Your task to perform on an android device: turn off sleep mode Image 0: 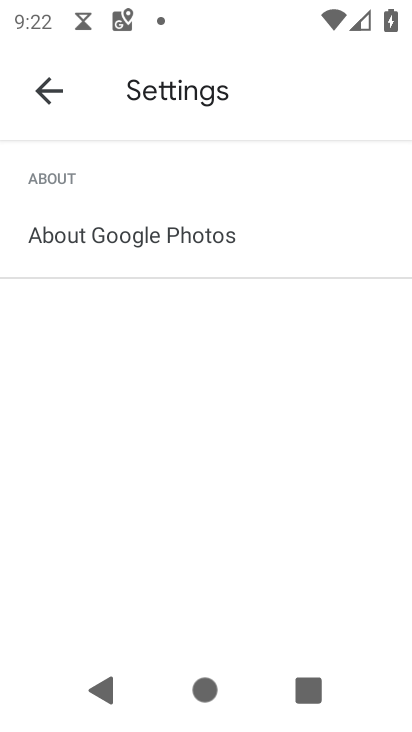
Step 0: press home button
Your task to perform on an android device: turn off sleep mode Image 1: 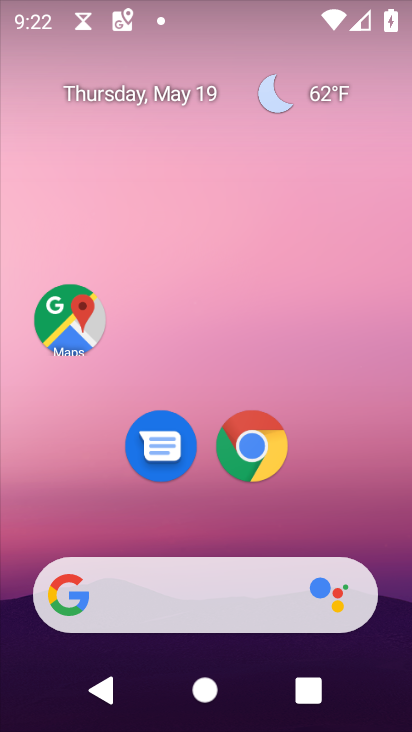
Step 1: drag from (281, 515) to (267, 28)
Your task to perform on an android device: turn off sleep mode Image 2: 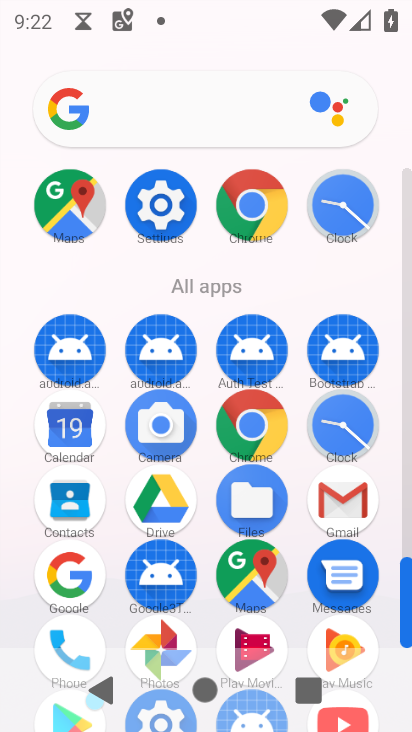
Step 2: click (158, 201)
Your task to perform on an android device: turn off sleep mode Image 3: 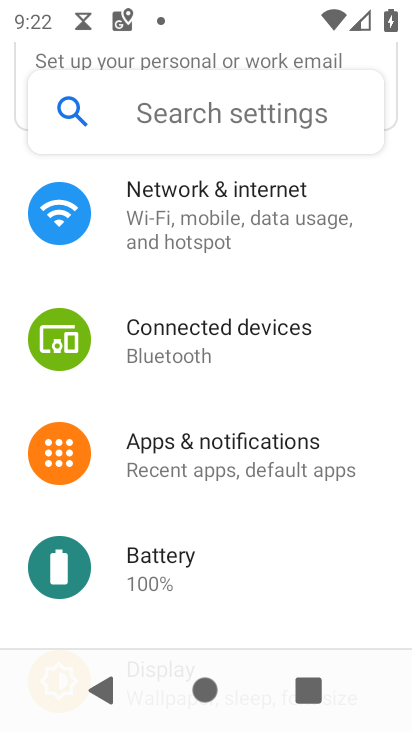
Step 3: drag from (193, 526) to (198, 305)
Your task to perform on an android device: turn off sleep mode Image 4: 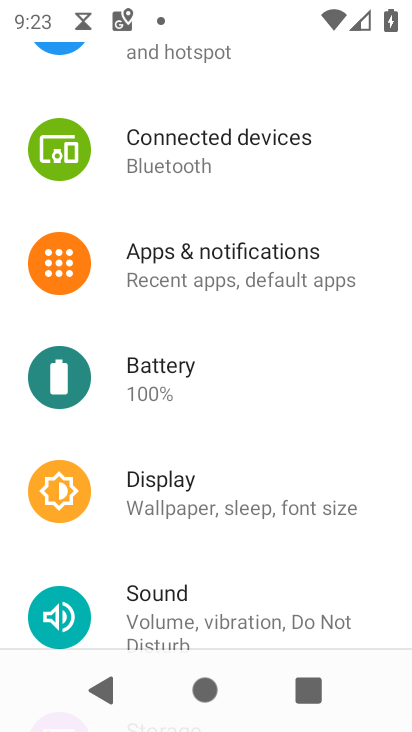
Step 4: drag from (231, 507) to (221, 376)
Your task to perform on an android device: turn off sleep mode Image 5: 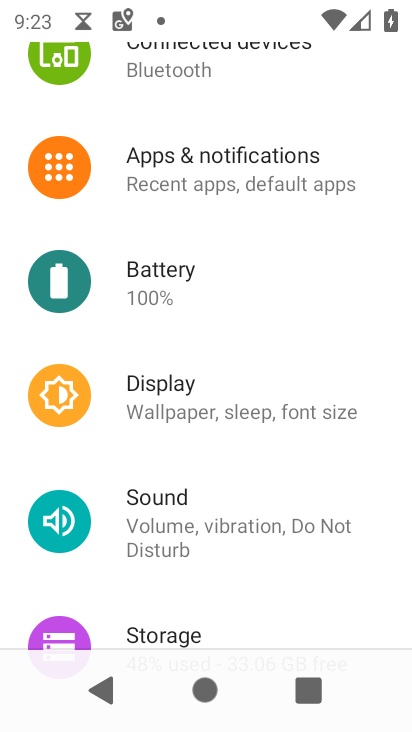
Step 5: drag from (252, 533) to (226, 359)
Your task to perform on an android device: turn off sleep mode Image 6: 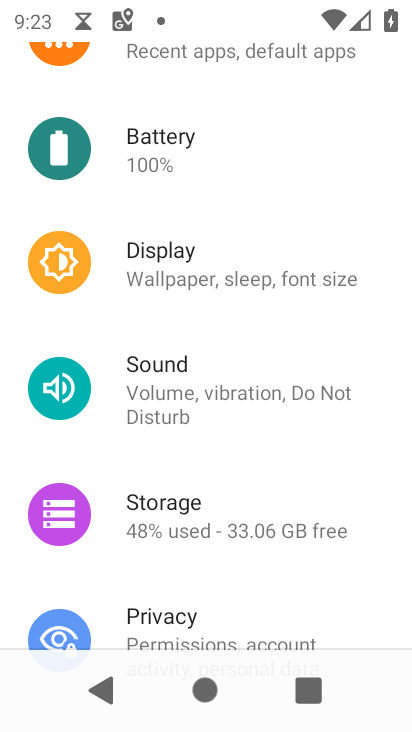
Step 6: drag from (261, 546) to (241, 395)
Your task to perform on an android device: turn off sleep mode Image 7: 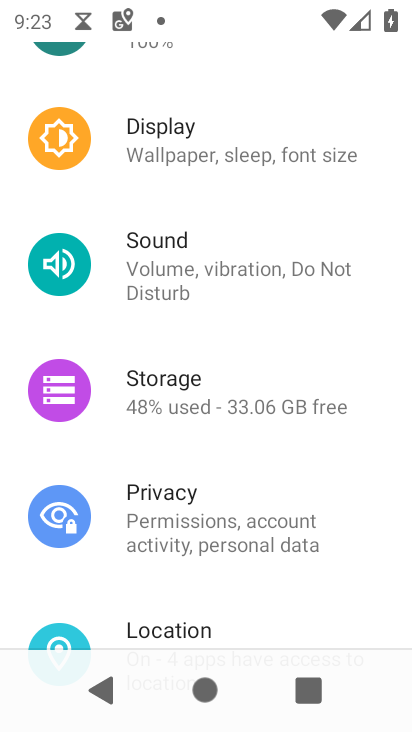
Step 7: drag from (243, 547) to (223, 426)
Your task to perform on an android device: turn off sleep mode Image 8: 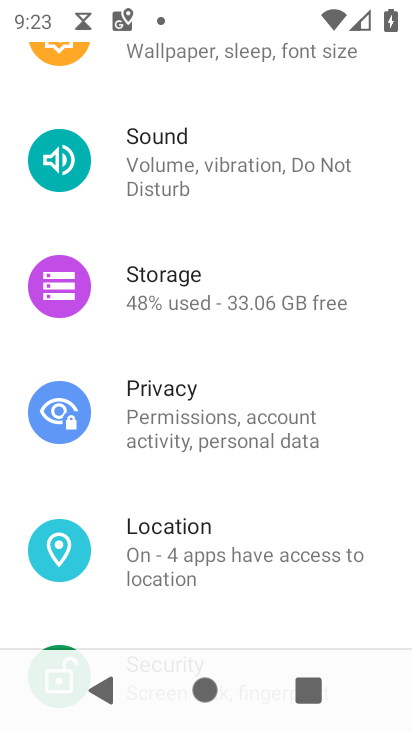
Step 8: drag from (222, 552) to (210, 416)
Your task to perform on an android device: turn off sleep mode Image 9: 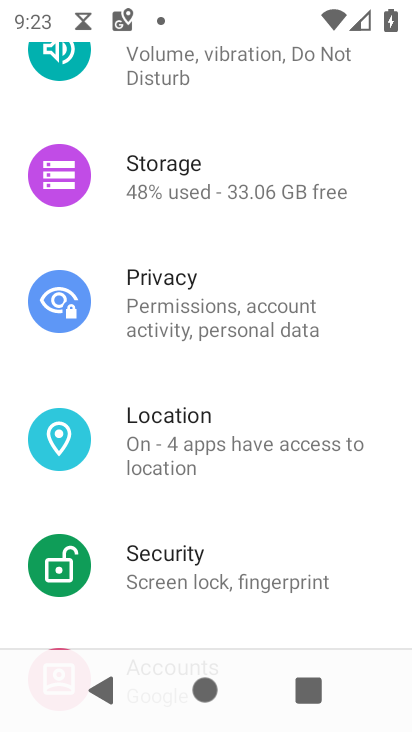
Step 9: drag from (231, 547) to (225, 419)
Your task to perform on an android device: turn off sleep mode Image 10: 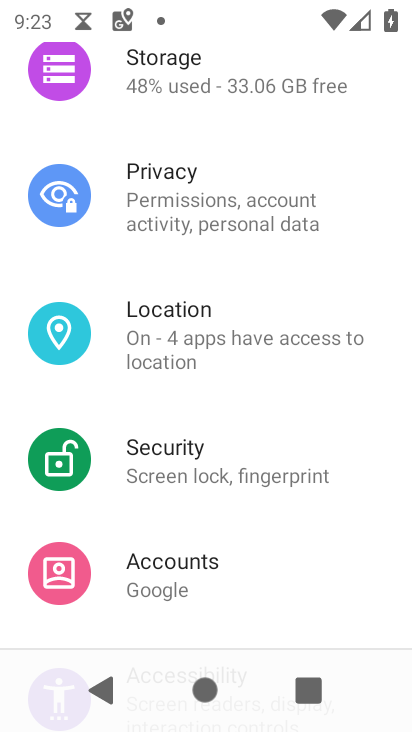
Step 10: drag from (241, 567) to (242, 332)
Your task to perform on an android device: turn off sleep mode Image 11: 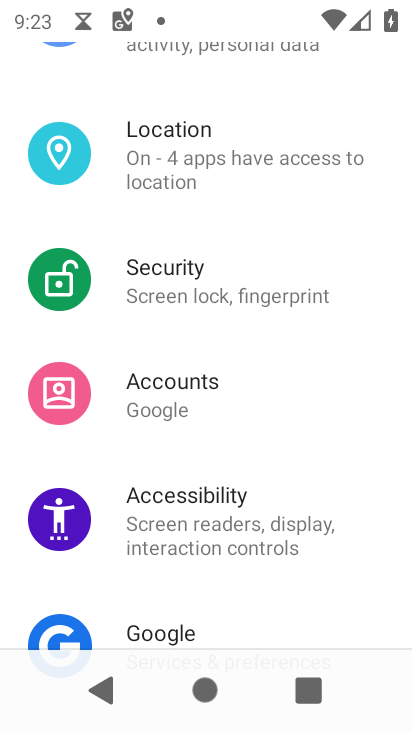
Step 11: drag from (271, 582) to (251, 311)
Your task to perform on an android device: turn off sleep mode Image 12: 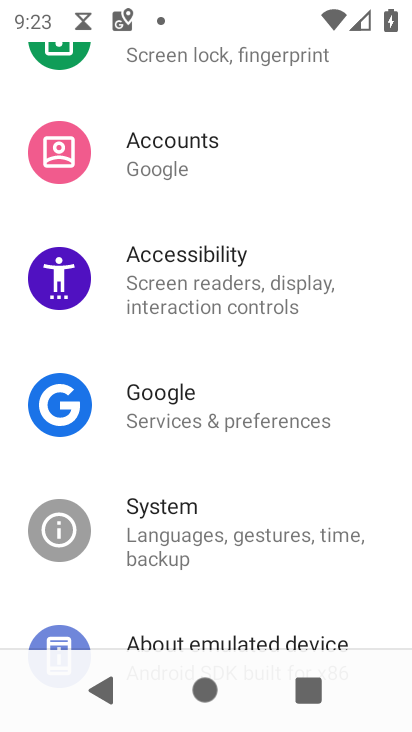
Step 12: drag from (212, 571) to (178, 550)
Your task to perform on an android device: turn off sleep mode Image 13: 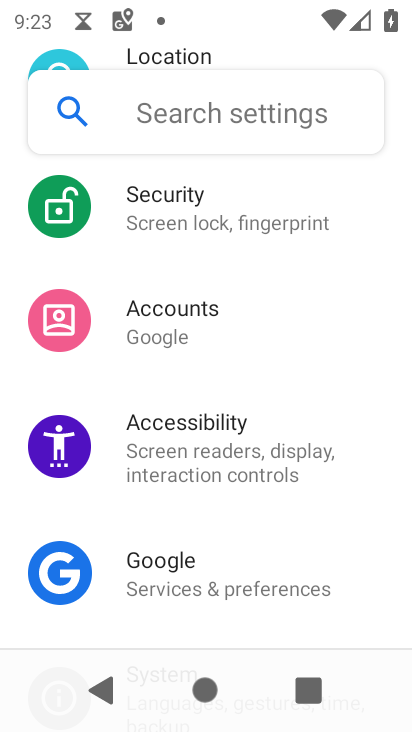
Step 13: drag from (167, 299) to (201, 583)
Your task to perform on an android device: turn off sleep mode Image 14: 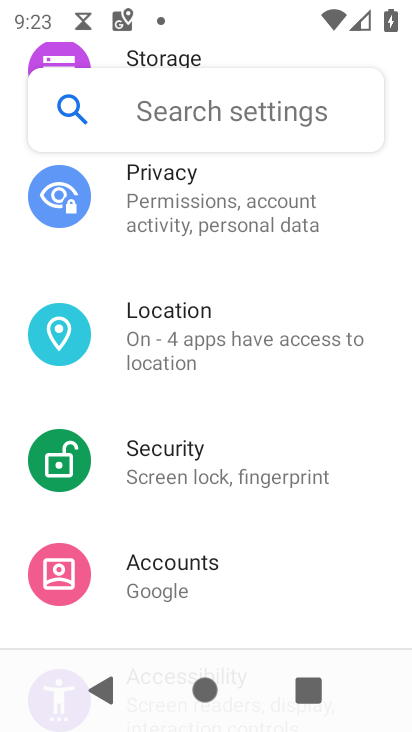
Step 14: drag from (152, 359) to (166, 524)
Your task to perform on an android device: turn off sleep mode Image 15: 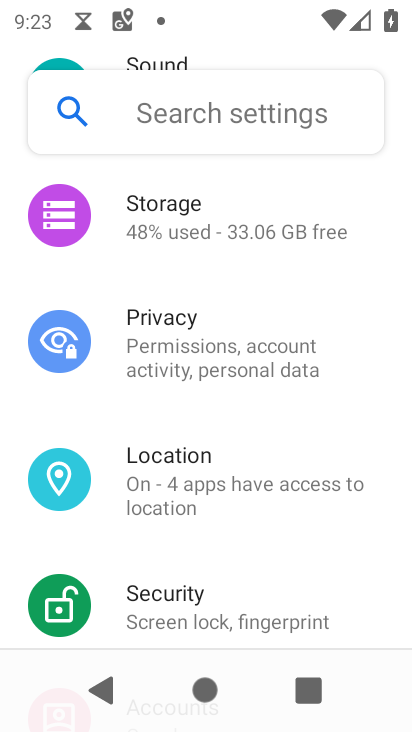
Step 15: drag from (141, 372) to (152, 497)
Your task to perform on an android device: turn off sleep mode Image 16: 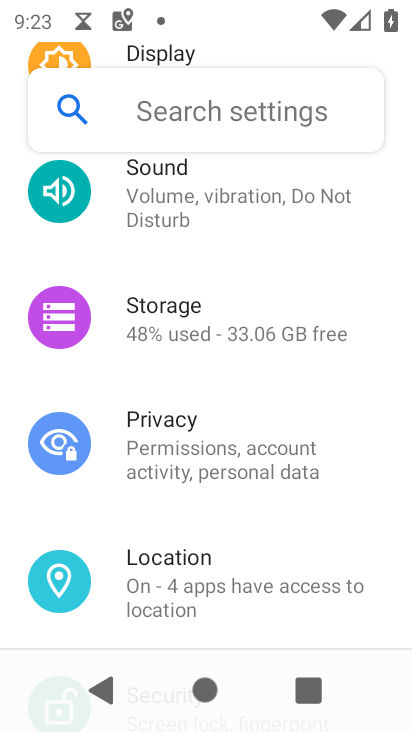
Step 16: drag from (157, 347) to (162, 516)
Your task to perform on an android device: turn off sleep mode Image 17: 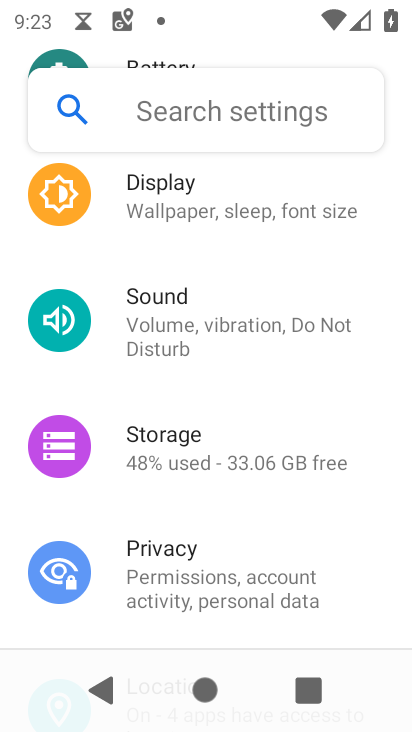
Step 17: drag from (142, 335) to (148, 441)
Your task to perform on an android device: turn off sleep mode Image 18: 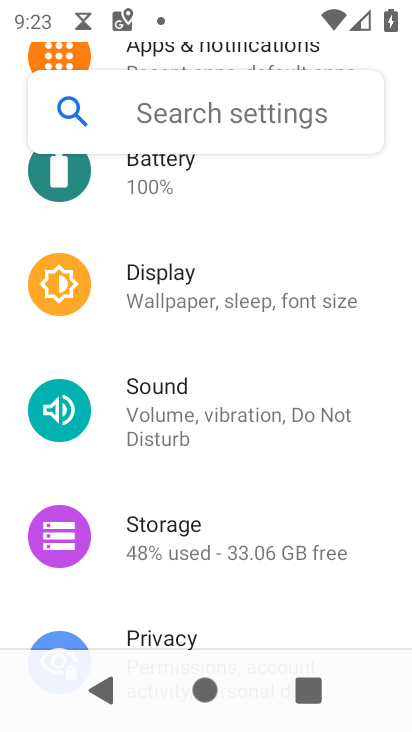
Step 18: click (184, 311)
Your task to perform on an android device: turn off sleep mode Image 19: 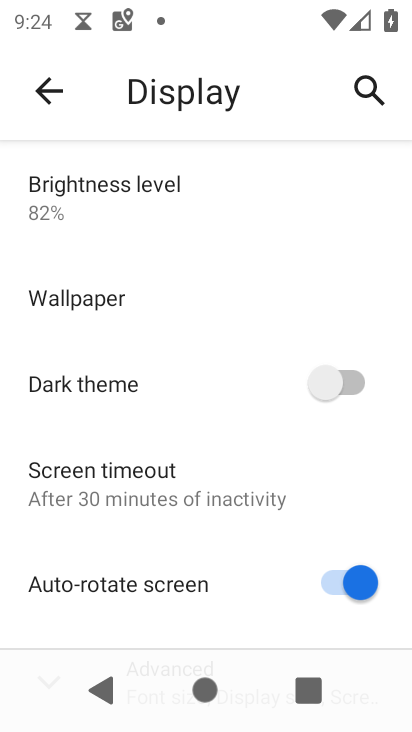
Step 19: drag from (208, 584) to (192, 334)
Your task to perform on an android device: turn off sleep mode Image 20: 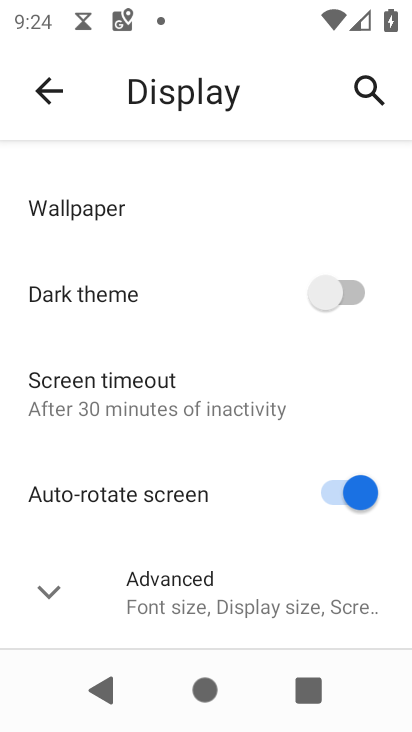
Step 20: click (202, 602)
Your task to perform on an android device: turn off sleep mode Image 21: 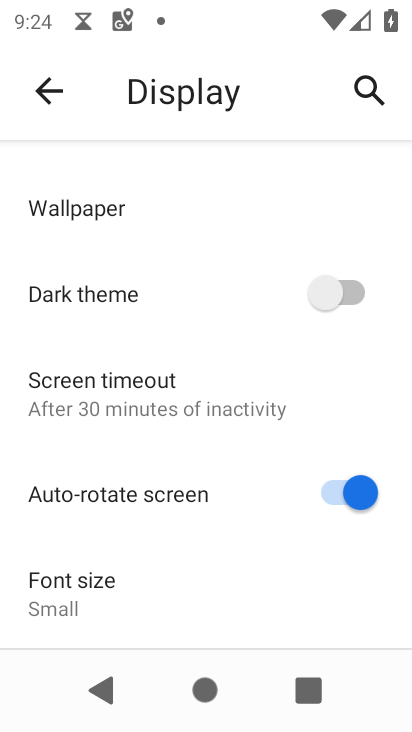
Step 21: task complete